Your task to perform on an android device: snooze an email in the gmail app Image 0: 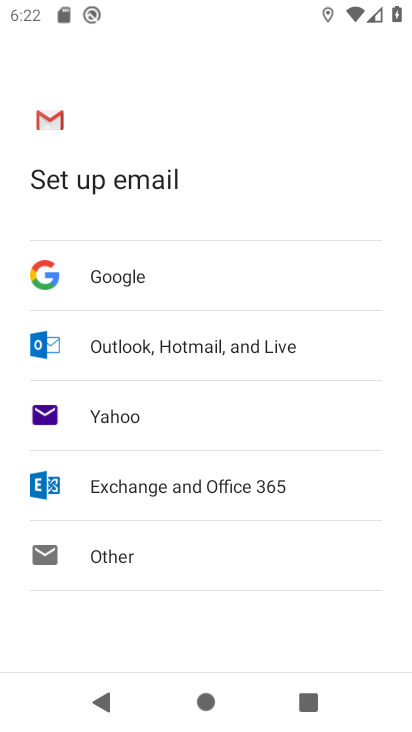
Step 0: press home button
Your task to perform on an android device: snooze an email in the gmail app Image 1: 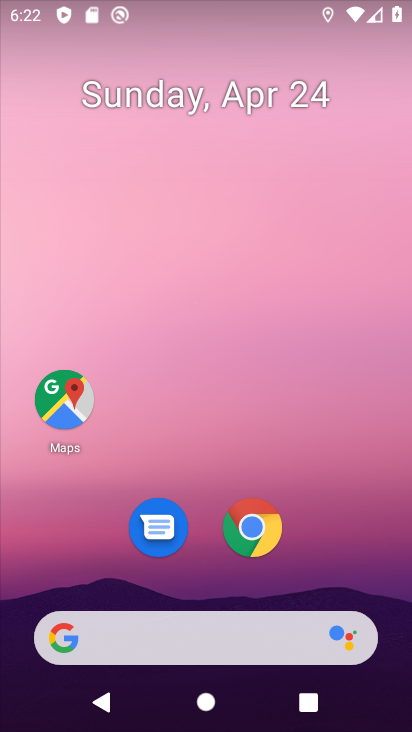
Step 1: drag from (197, 587) to (170, 5)
Your task to perform on an android device: snooze an email in the gmail app Image 2: 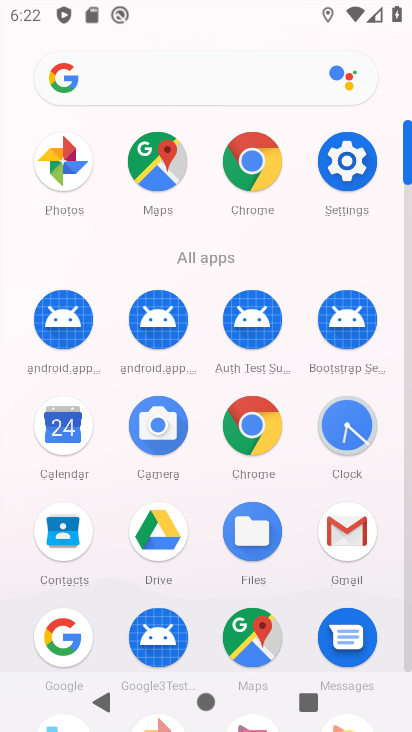
Step 2: click (338, 531)
Your task to perform on an android device: snooze an email in the gmail app Image 3: 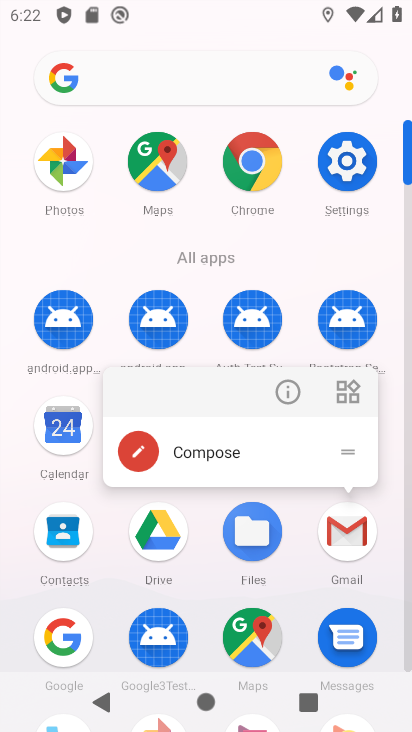
Step 3: click (353, 542)
Your task to perform on an android device: snooze an email in the gmail app Image 4: 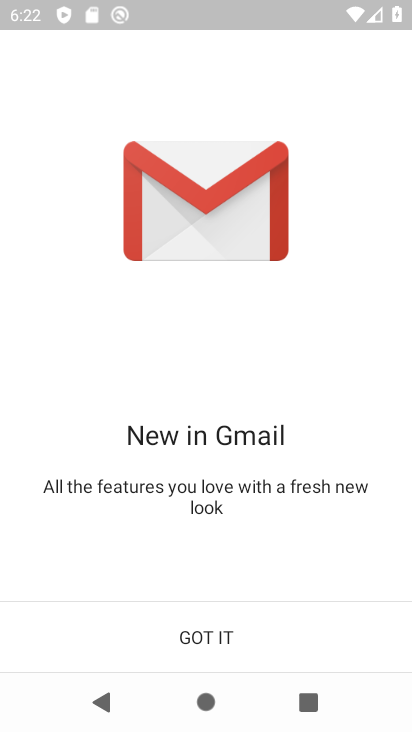
Step 4: click (203, 641)
Your task to perform on an android device: snooze an email in the gmail app Image 5: 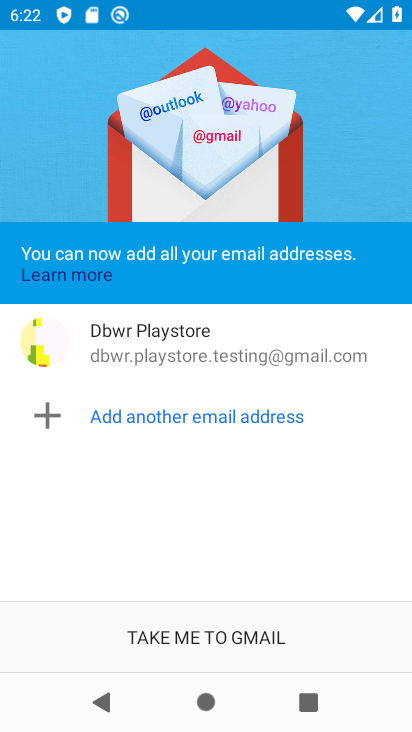
Step 5: click (224, 646)
Your task to perform on an android device: snooze an email in the gmail app Image 6: 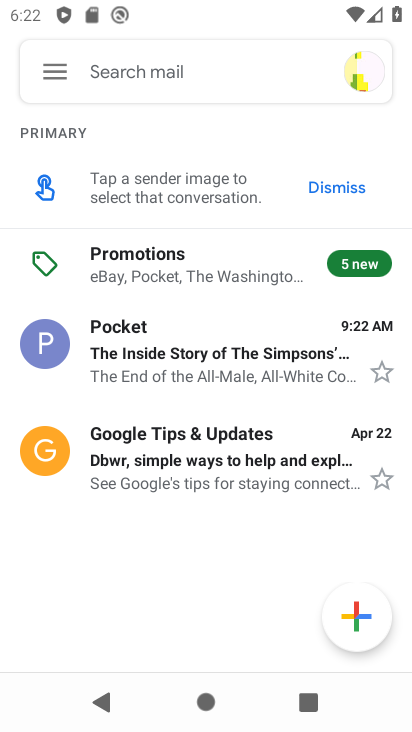
Step 6: click (175, 357)
Your task to perform on an android device: snooze an email in the gmail app Image 7: 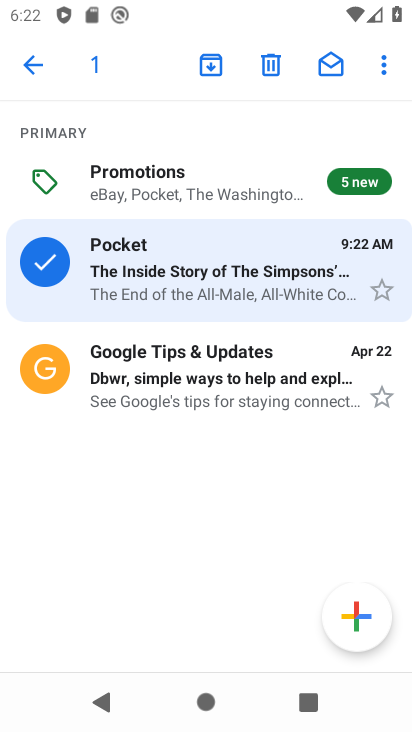
Step 7: click (385, 62)
Your task to perform on an android device: snooze an email in the gmail app Image 8: 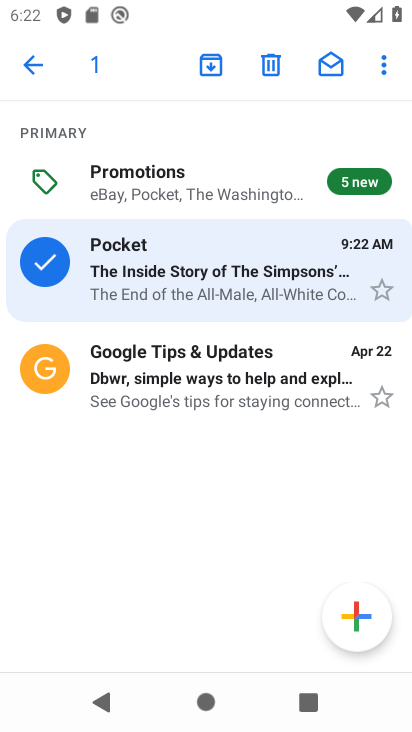
Step 8: click (382, 72)
Your task to perform on an android device: snooze an email in the gmail app Image 9: 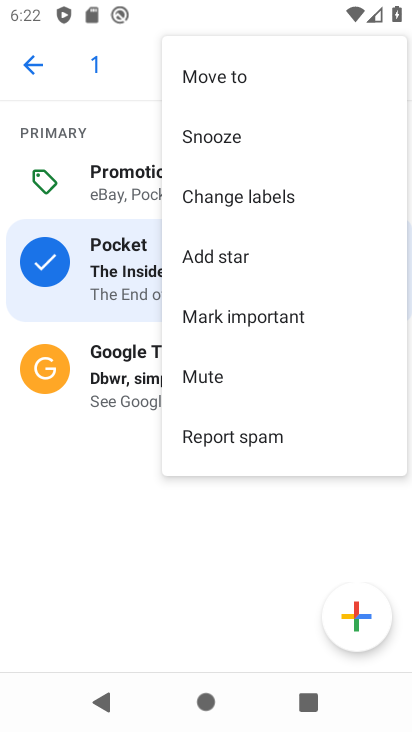
Step 9: click (215, 133)
Your task to perform on an android device: snooze an email in the gmail app Image 10: 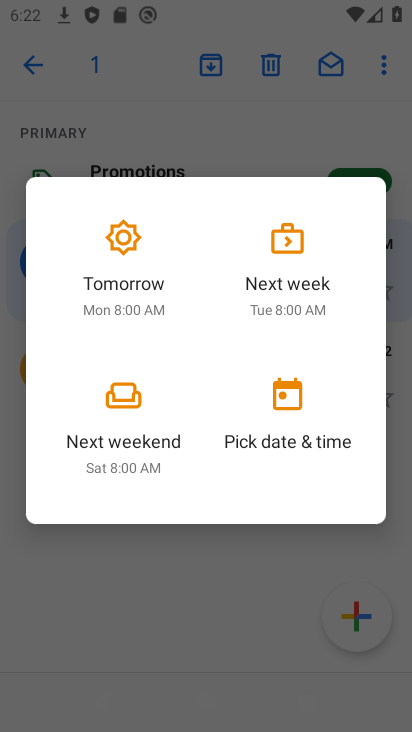
Step 10: click (134, 236)
Your task to perform on an android device: snooze an email in the gmail app Image 11: 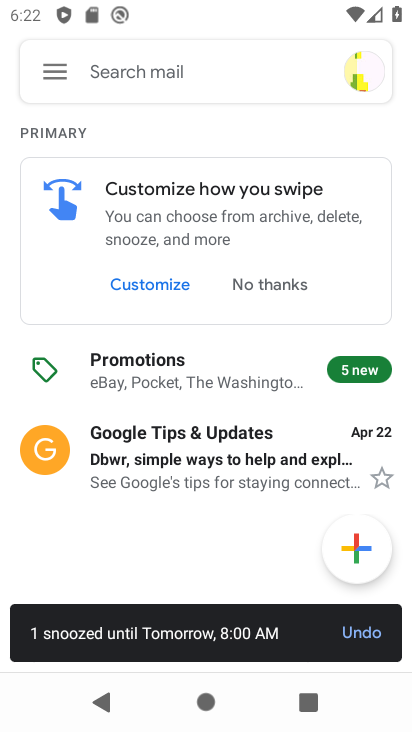
Step 11: task complete